Your task to perform on an android device: toggle show notifications on the lock screen Image 0: 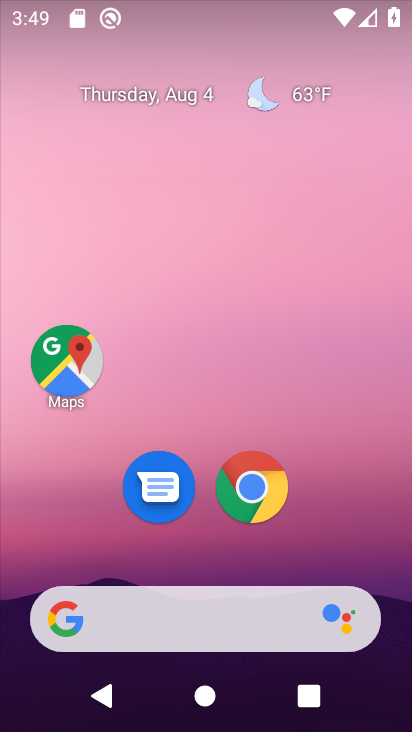
Step 0: drag from (132, 548) to (284, 8)
Your task to perform on an android device: toggle show notifications on the lock screen Image 1: 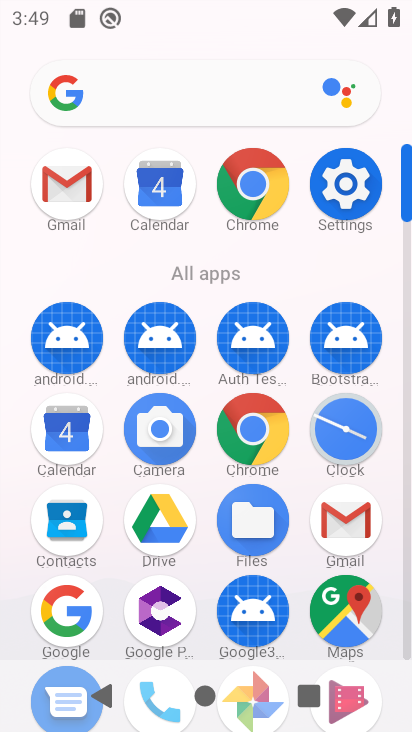
Step 1: click (352, 184)
Your task to perform on an android device: toggle show notifications on the lock screen Image 2: 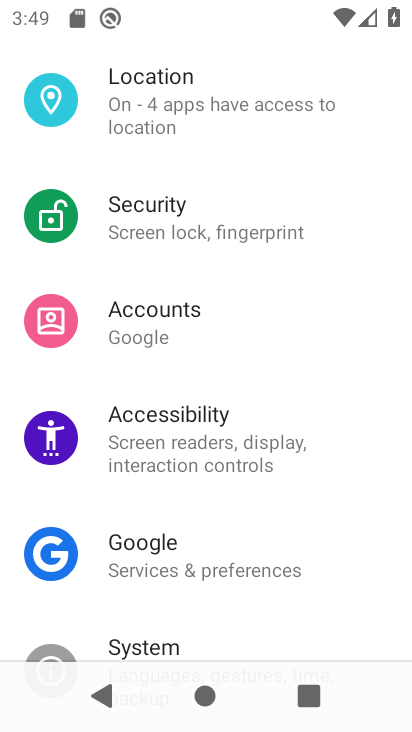
Step 2: drag from (231, 125) to (220, 680)
Your task to perform on an android device: toggle show notifications on the lock screen Image 3: 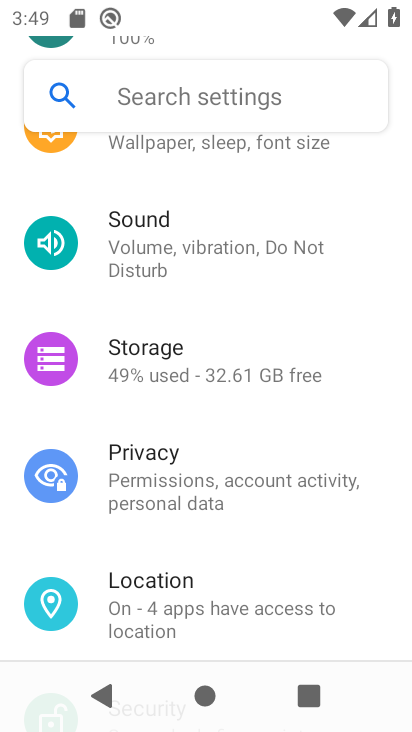
Step 3: drag from (215, 193) to (222, 728)
Your task to perform on an android device: toggle show notifications on the lock screen Image 4: 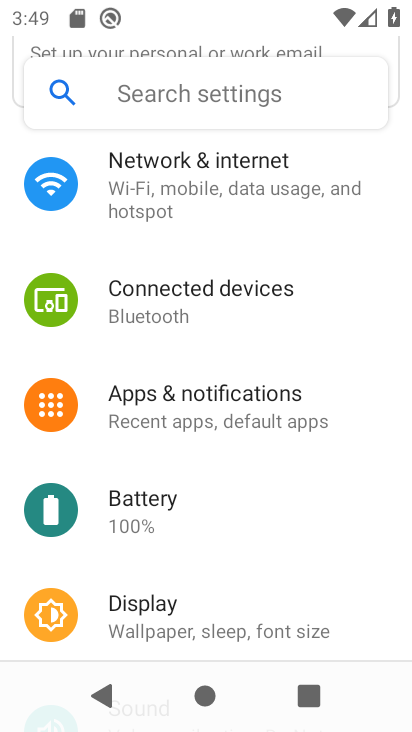
Step 4: click (200, 411)
Your task to perform on an android device: toggle show notifications on the lock screen Image 5: 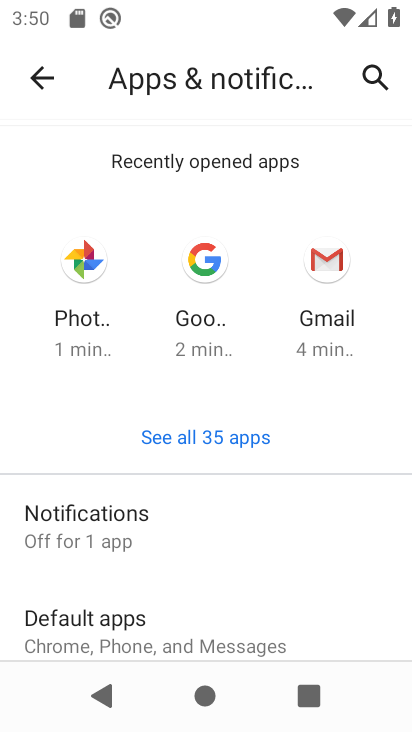
Step 5: click (163, 524)
Your task to perform on an android device: toggle show notifications on the lock screen Image 6: 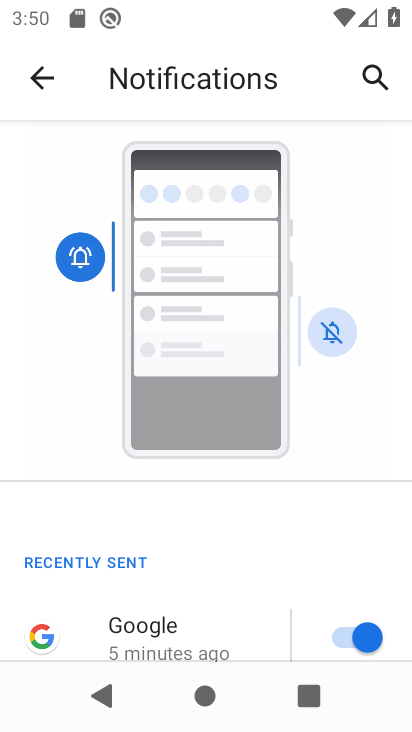
Step 6: drag from (156, 634) to (254, 15)
Your task to perform on an android device: toggle show notifications on the lock screen Image 7: 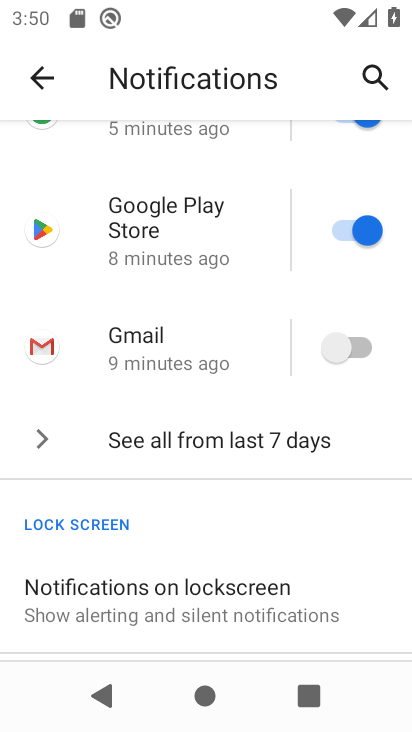
Step 7: click (109, 590)
Your task to perform on an android device: toggle show notifications on the lock screen Image 8: 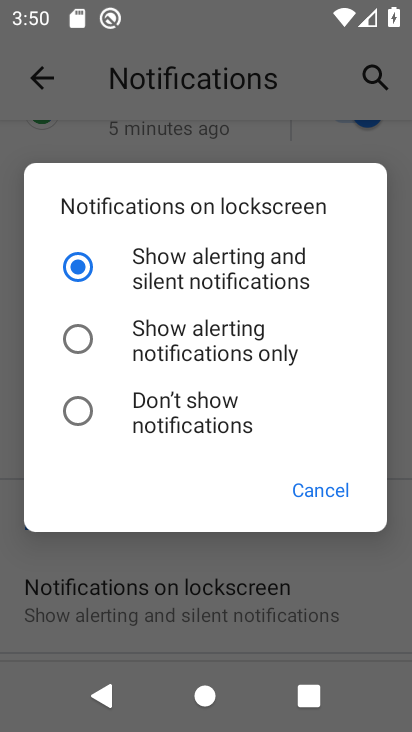
Step 8: click (79, 255)
Your task to perform on an android device: toggle show notifications on the lock screen Image 9: 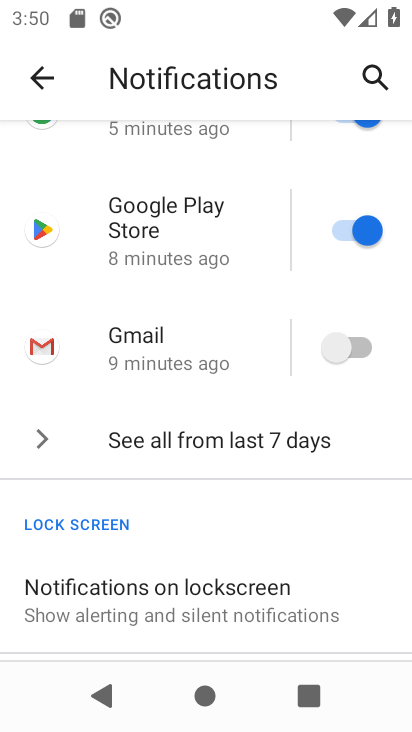
Step 9: task complete